Your task to perform on an android device: move an email to a new category in the gmail app Image 0: 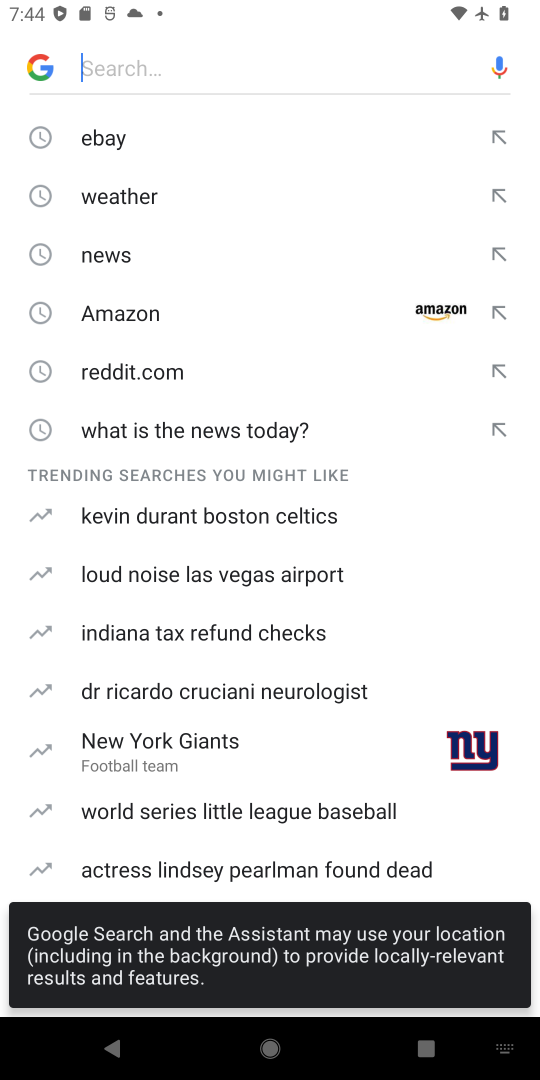
Step 0: press home button
Your task to perform on an android device: move an email to a new category in the gmail app Image 1: 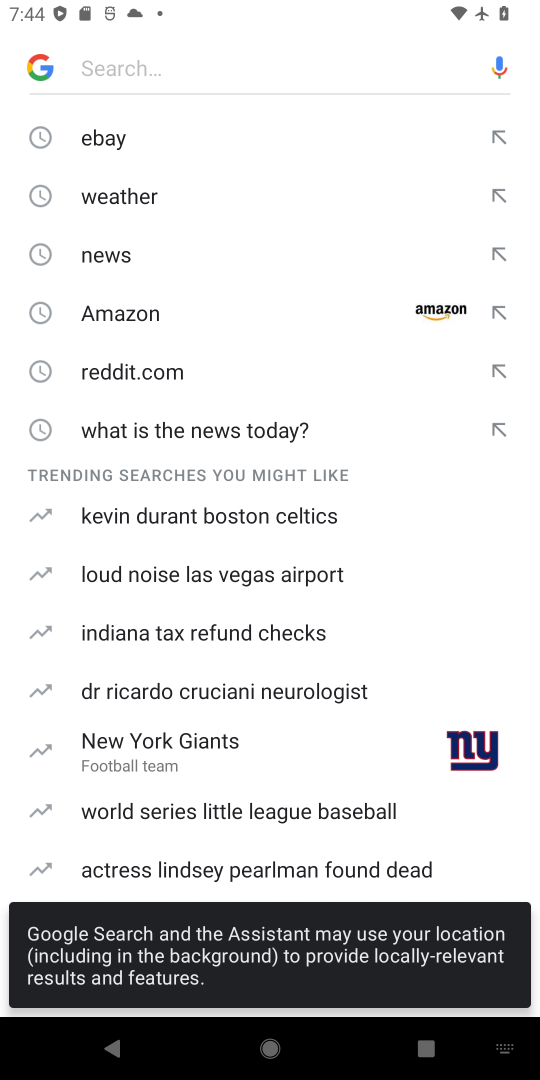
Step 1: press home button
Your task to perform on an android device: move an email to a new category in the gmail app Image 2: 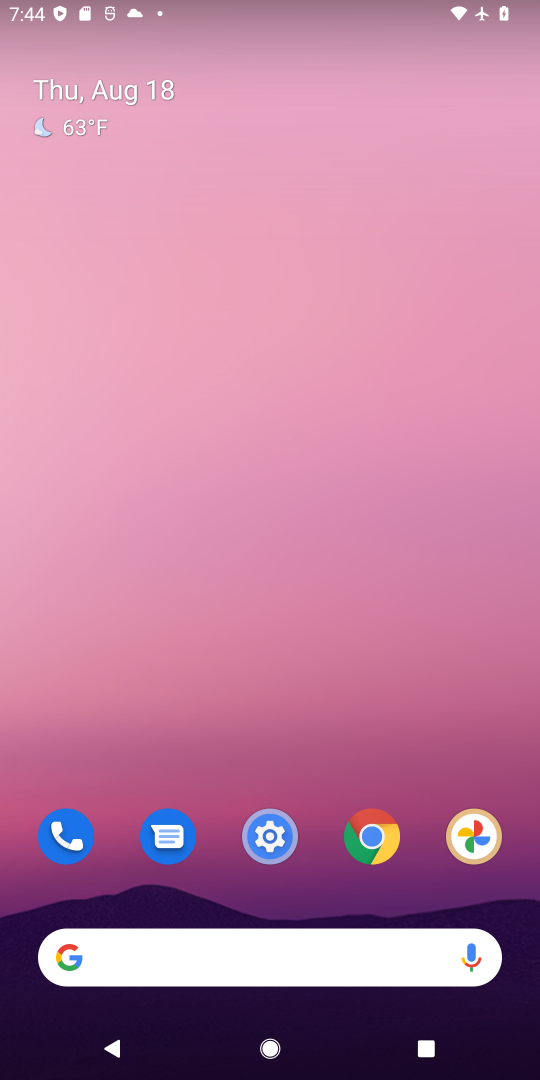
Step 2: drag from (399, 741) to (319, 43)
Your task to perform on an android device: move an email to a new category in the gmail app Image 3: 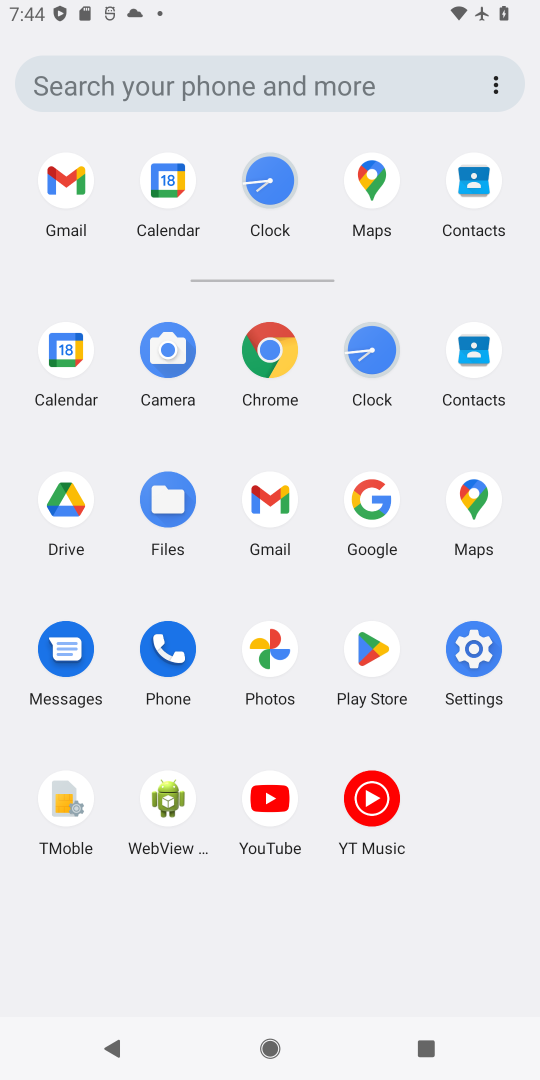
Step 3: click (266, 504)
Your task to perform on an android device: move an email to a new category in the gmail app Image 4: 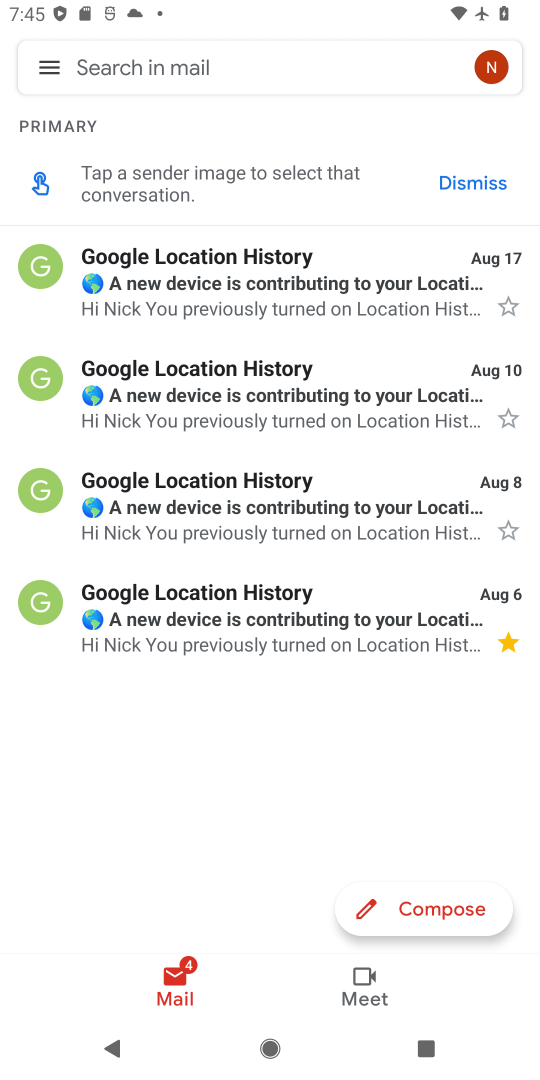
Step 4: click (349, 388)
Your task to perform on an android device: move an email to a new category in the gmail app Image 5: 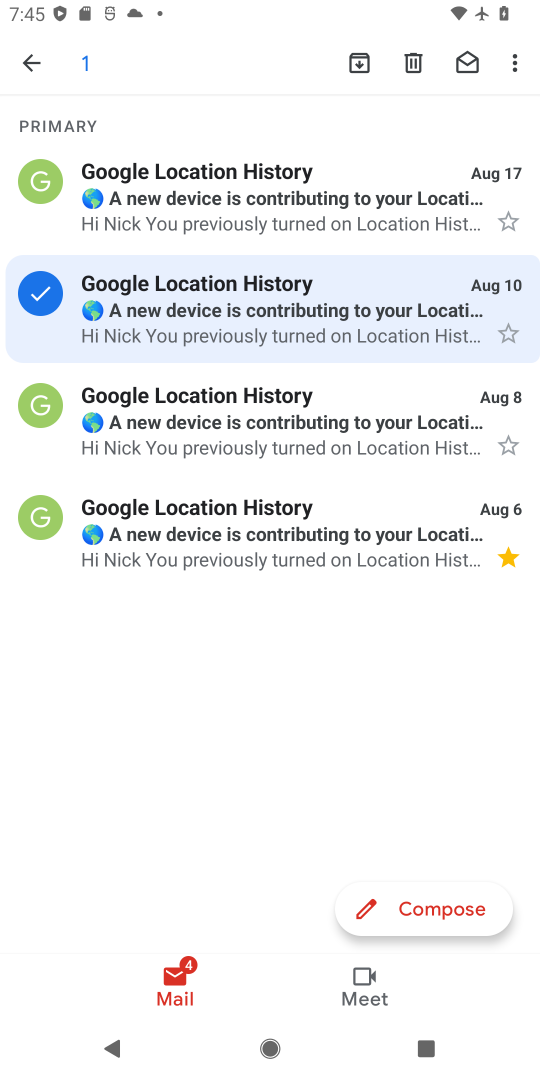
Step 5: click (505, 53)
Your task to perform on an android device: move an email to a new category in the gmail app Image 6: 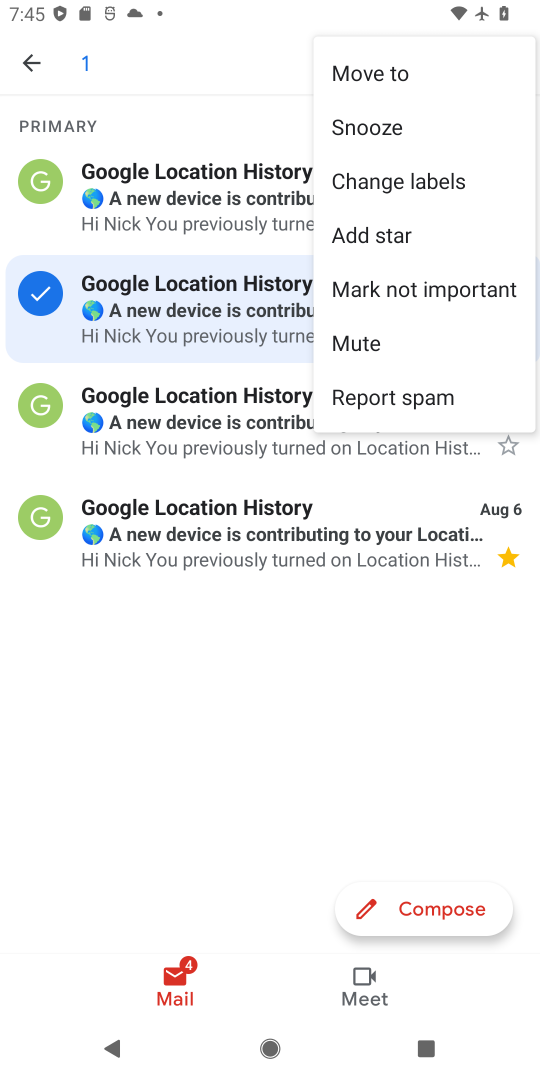
Step 6: task complete